Your task to perform on an android device: Empty the shopping cart on target. Search for razer blackwidow on target, select the first entry, and add it to the cart. Image 0: 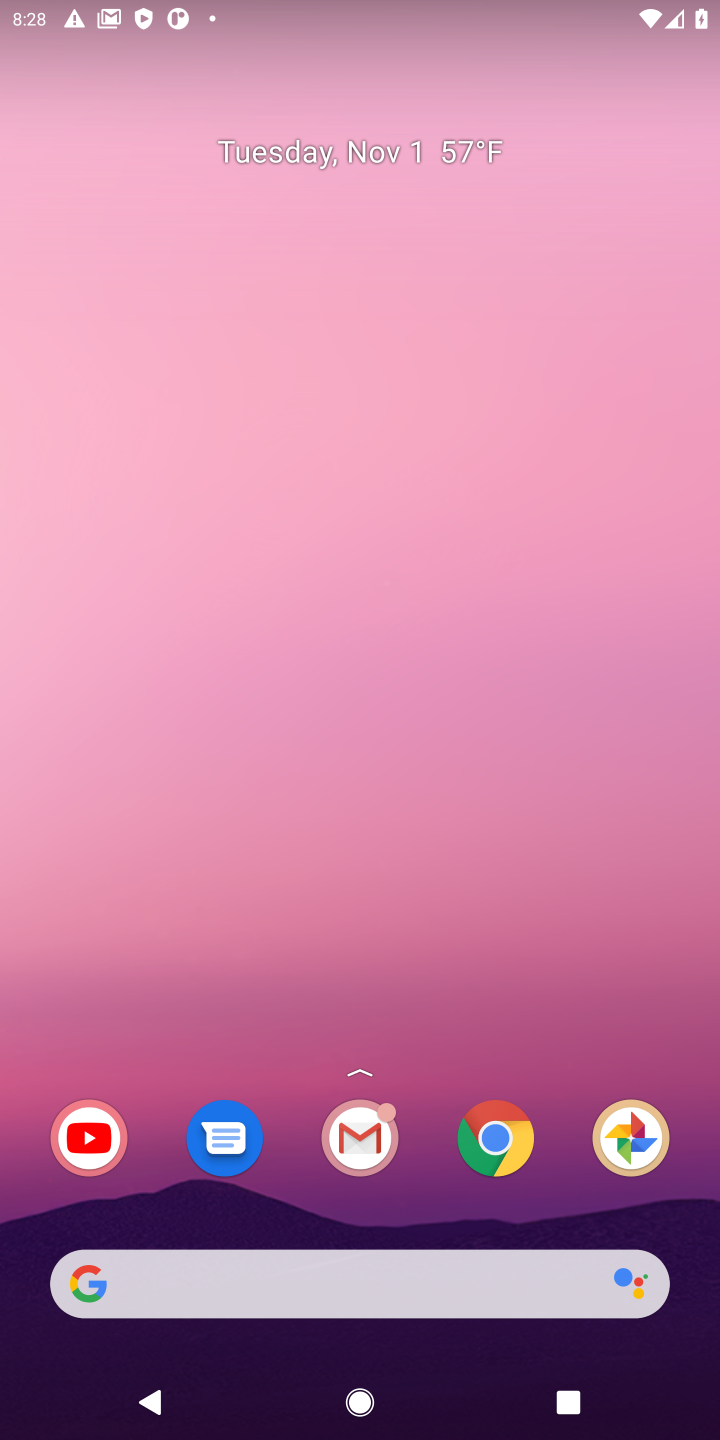
Step 0: click (503, 1147)
Your task to perform on an android device: Empty the shopping cart on target. Search for razer blackwidow on target, select the first entry, and add it to the cart. Image 1: 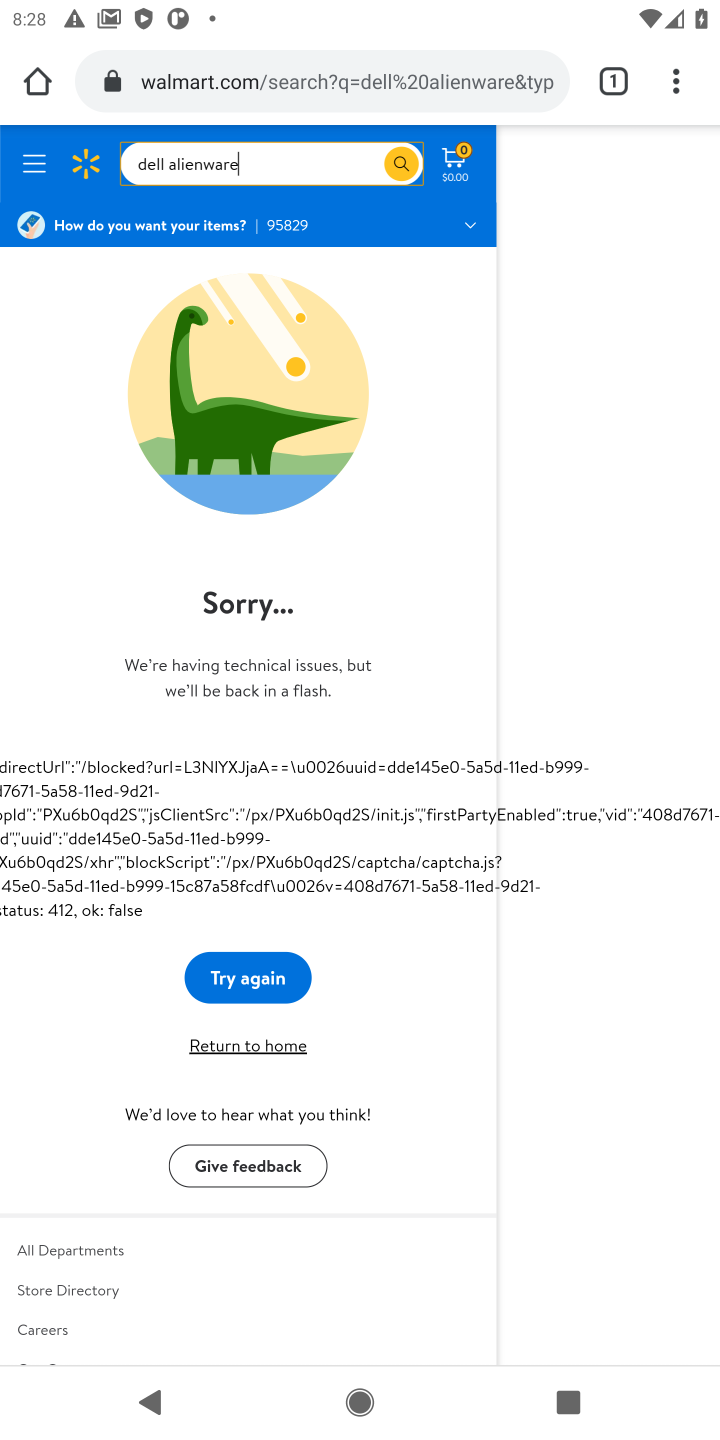
Step 1: click (279, 92)
Your task to perform on an android device: Empty the shopping cart on target. Search for razer blackwidow on target, select the first entry, and add it to the cart. Image 2: 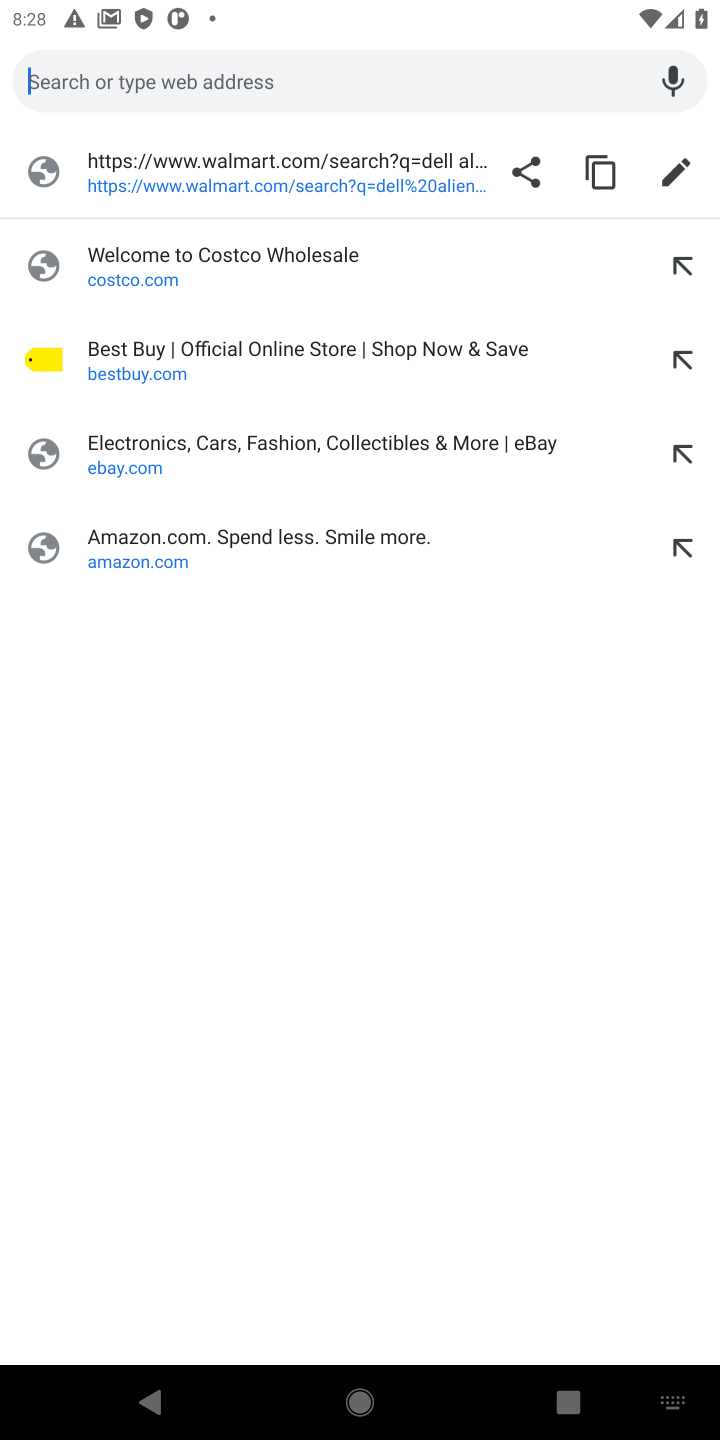
Step 2: type "target.com"
Your task to perform on an android device: Empty the shopping cart on target. Search for razer blackwidow on target, select the first entry, and add it to the cart. Image 3: 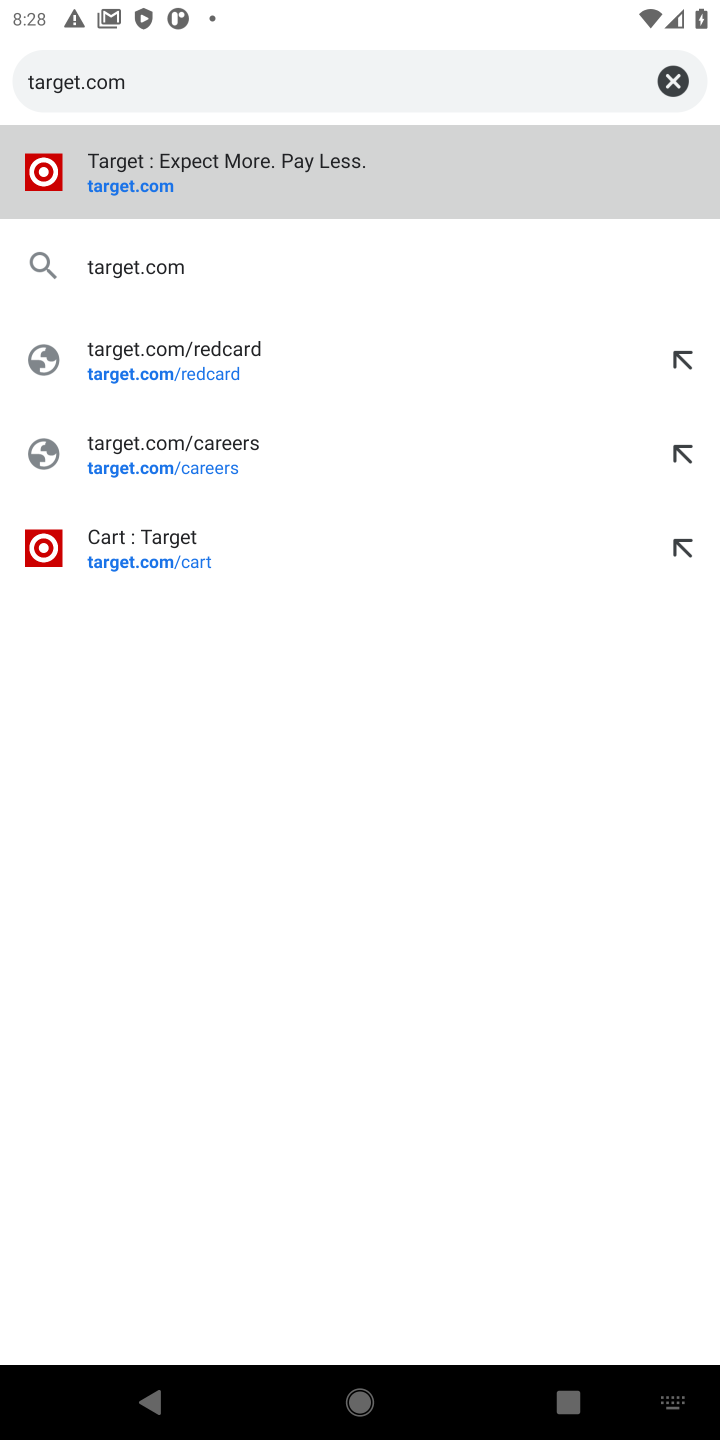
Step 3: click (111, 189)
Your task to perform on an android device: Empty the shopping cart on target. Search for razer blackwidow on target, select the first entry, and add it to the cart. Image 4: 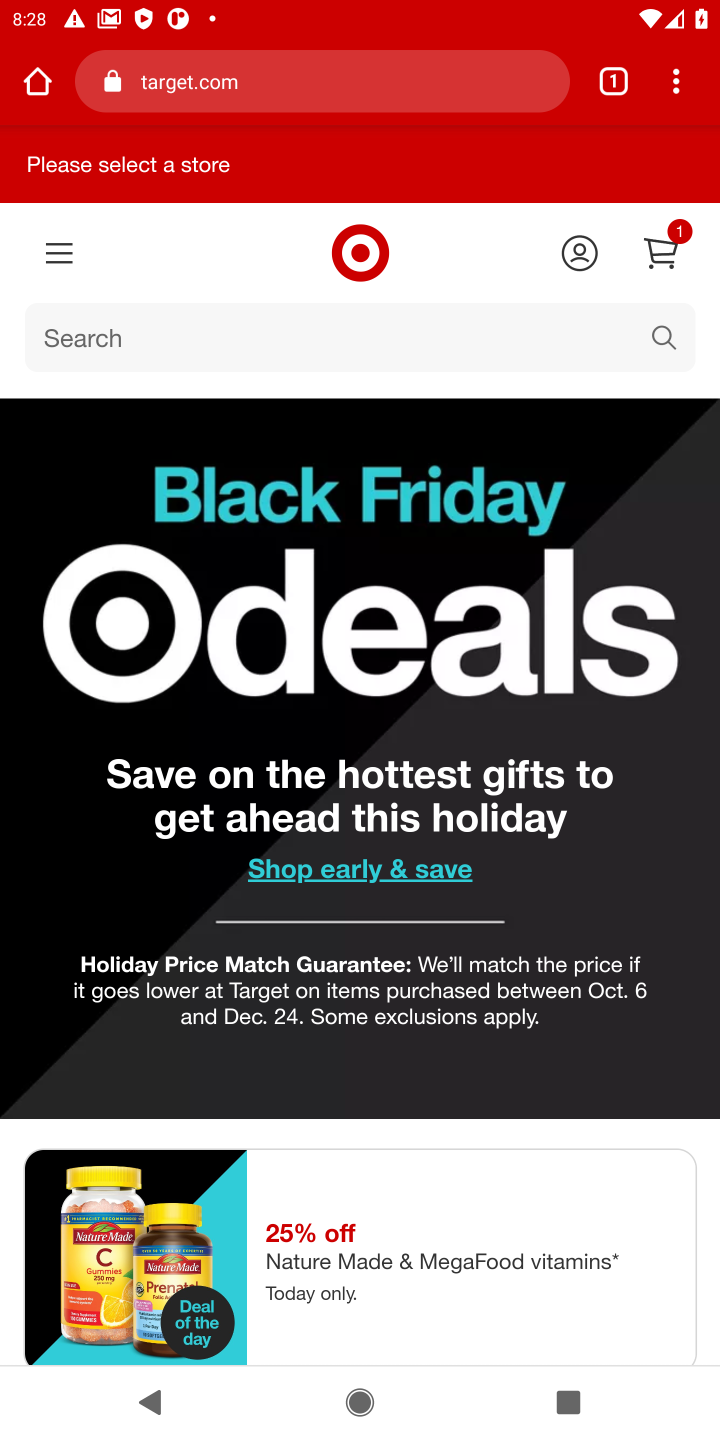
Step 4: click (107, 345)
Your task to perform on an android device: Empty the shopping cart on target. Search for razer blackwidow on target, select the first entry, and add it to the cart. Image 5: 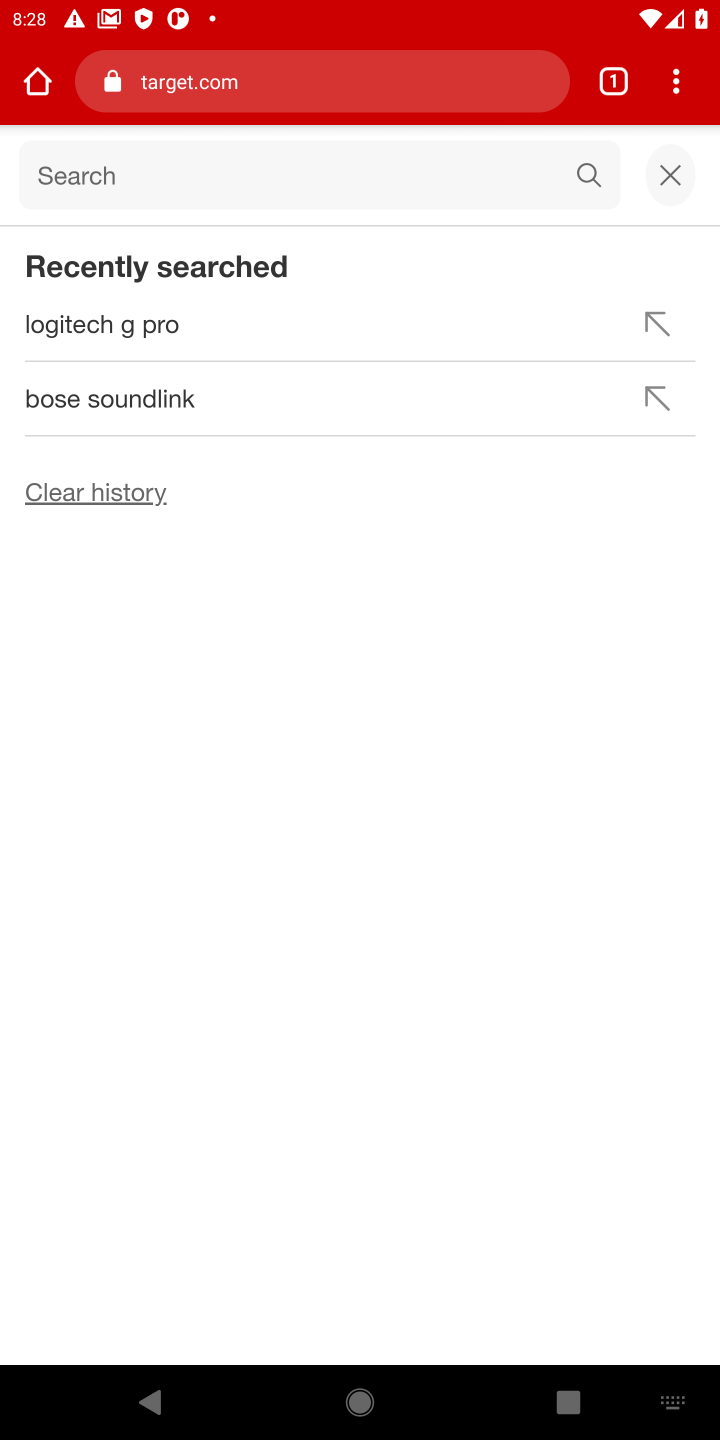
Step 5: type "razer blackwidow"
Your task to perform on an android device: Empty the shopping cart on target. Search for razer blackwidow on target, select the first entry, and add it to the cart. Image 6: 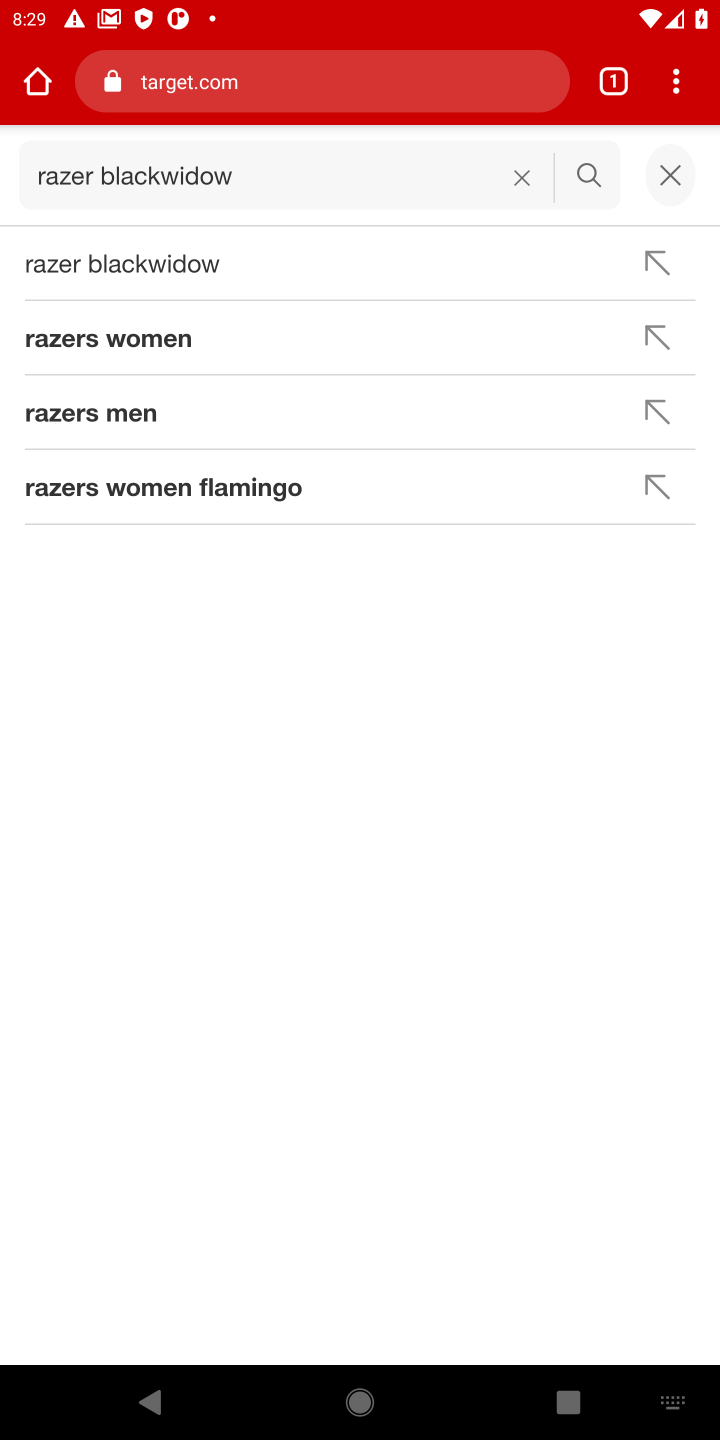
Step 6: click (155, 194)
Your task to perform on an android device: Empty the shopping cart on target. Search for razer blackwidow on target, select the first entry, and add it to the cart. Image 7: 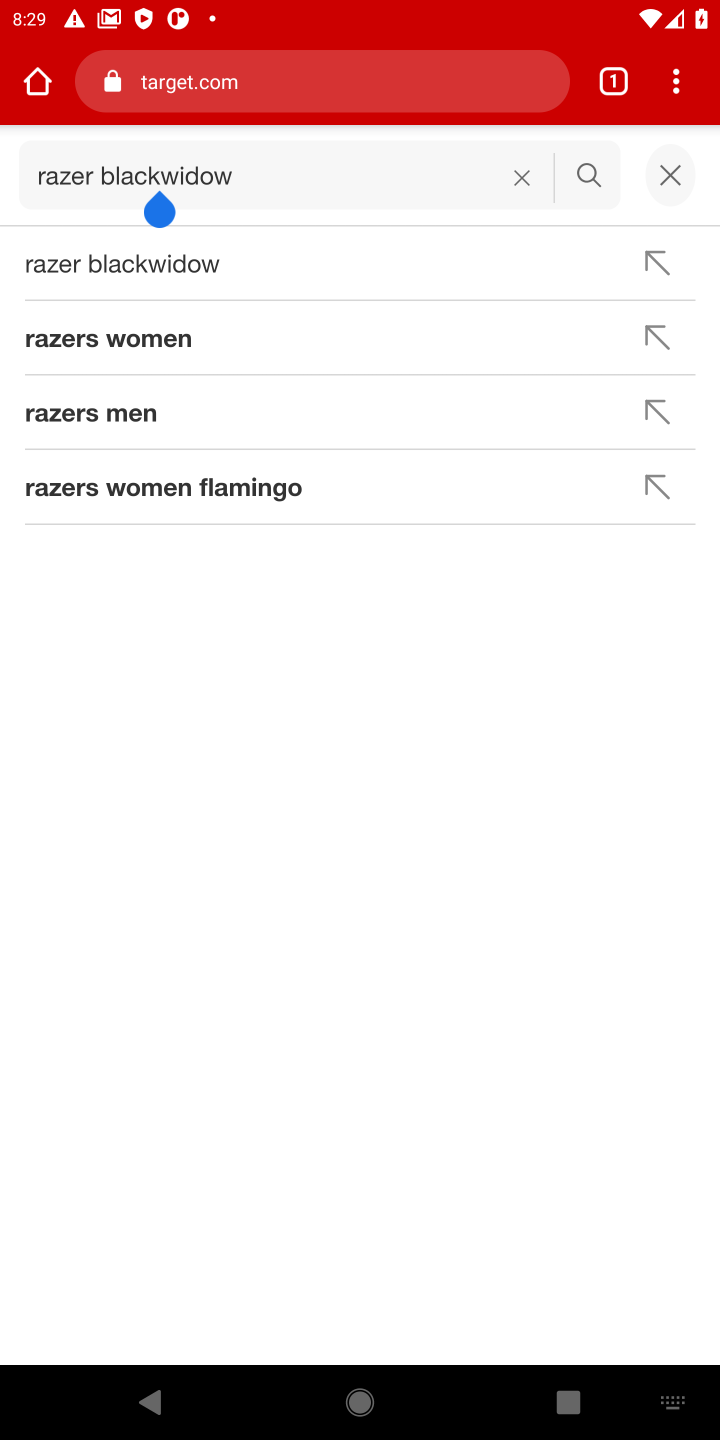
Step 7: click (141, 277)
Your task to perform on an android device: Empty the shopping cart on target. Search for razer blackwidow on target, select the first entry, and add it to the cart. Image 8: 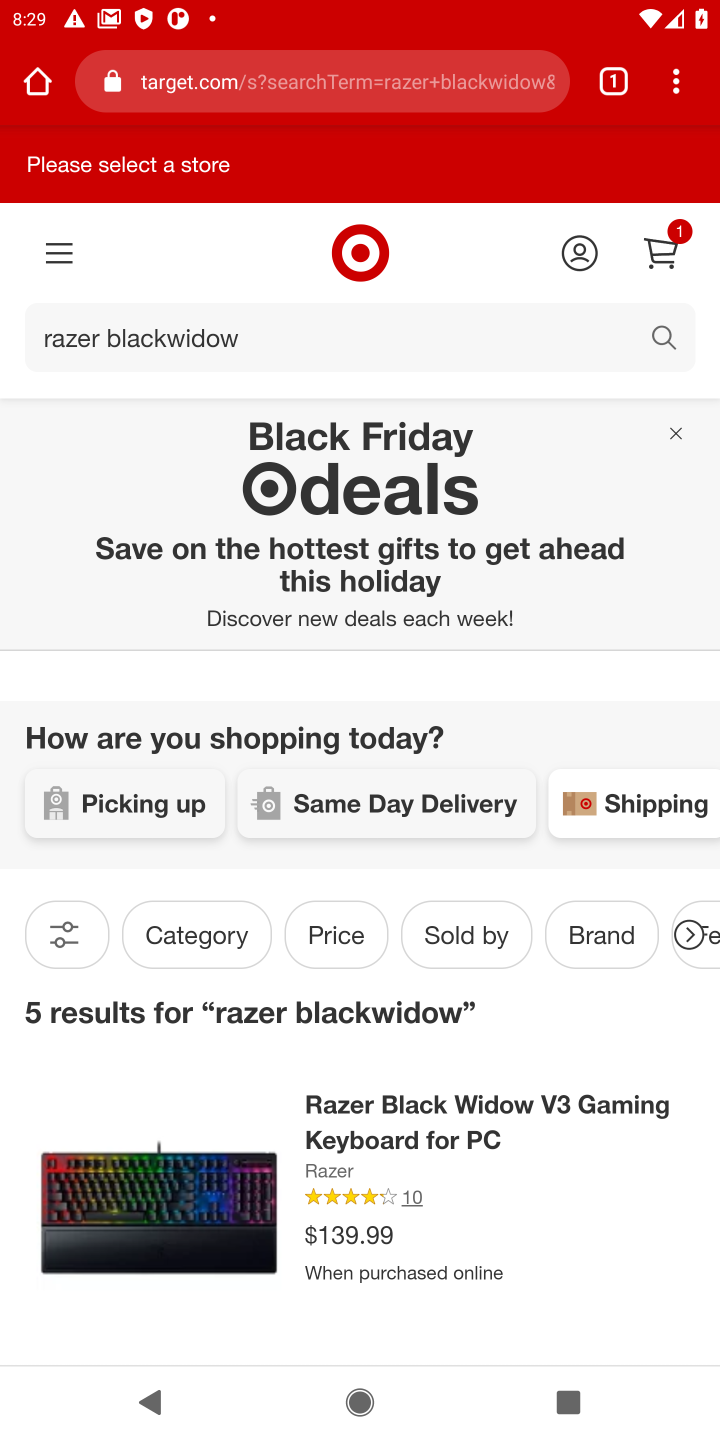
Step 8: click (655, 244)
Your task to perform on an android device: Empty the shopping cart on target. Search for razer blackwidow on target, select the first entry, and add it to the cart. Image 9: 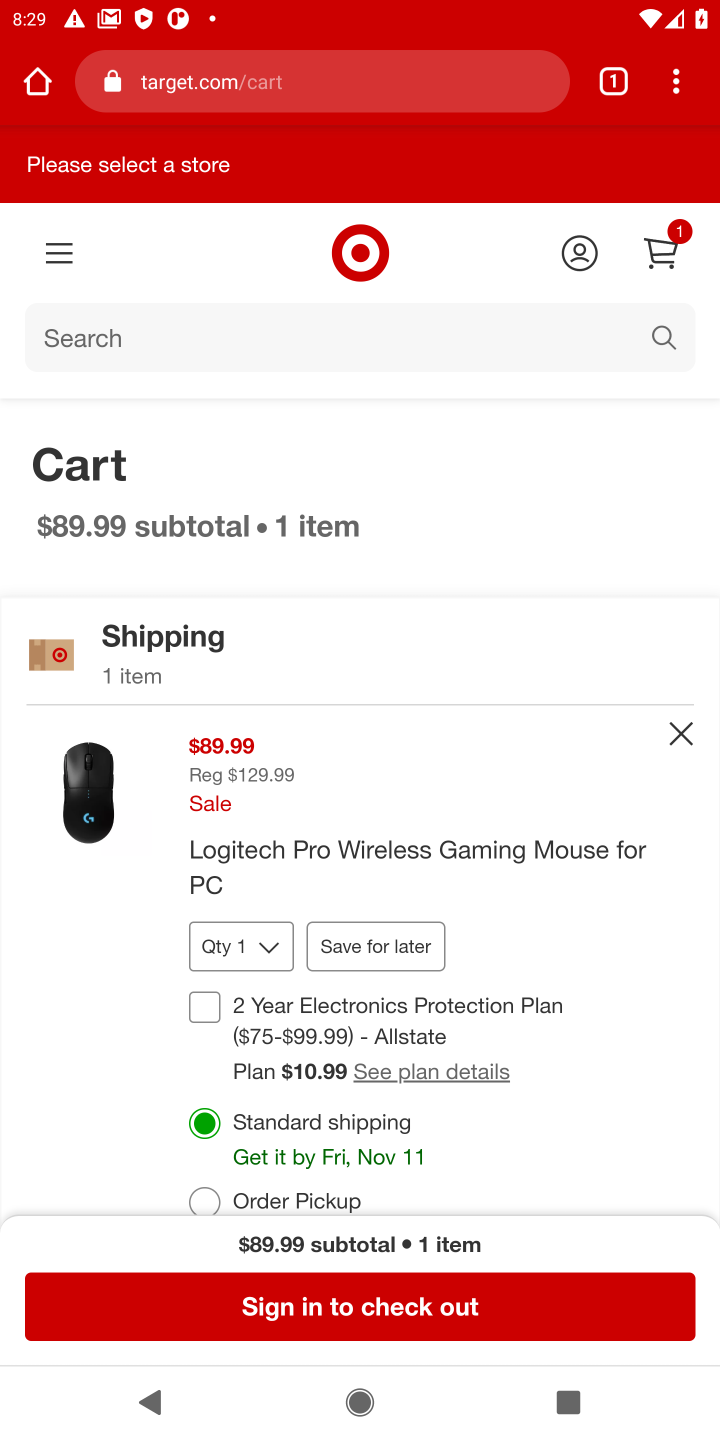
Step 9: drag from (338, 1084) to (333, 864)
Your task to perform on an android device: Empty the shopping cart on target. Search for razer blackwidow on target, select the first entry, and add it to the cart. Image 10: 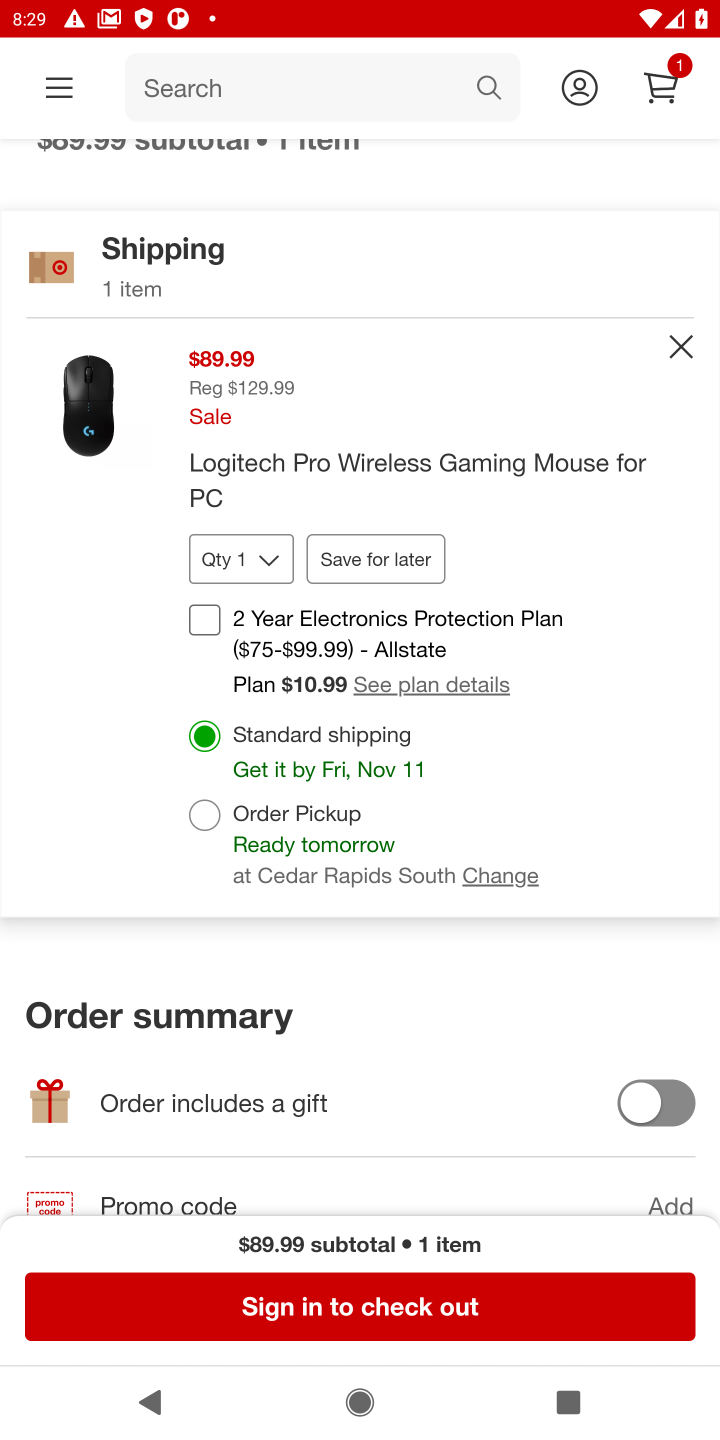
Step 10: click (660, 356)
Your task to perform on an android device: Empty the shopping cart on target. Search for razer blackwidow on target, select the first entry, and add it to the cart. Image 11: 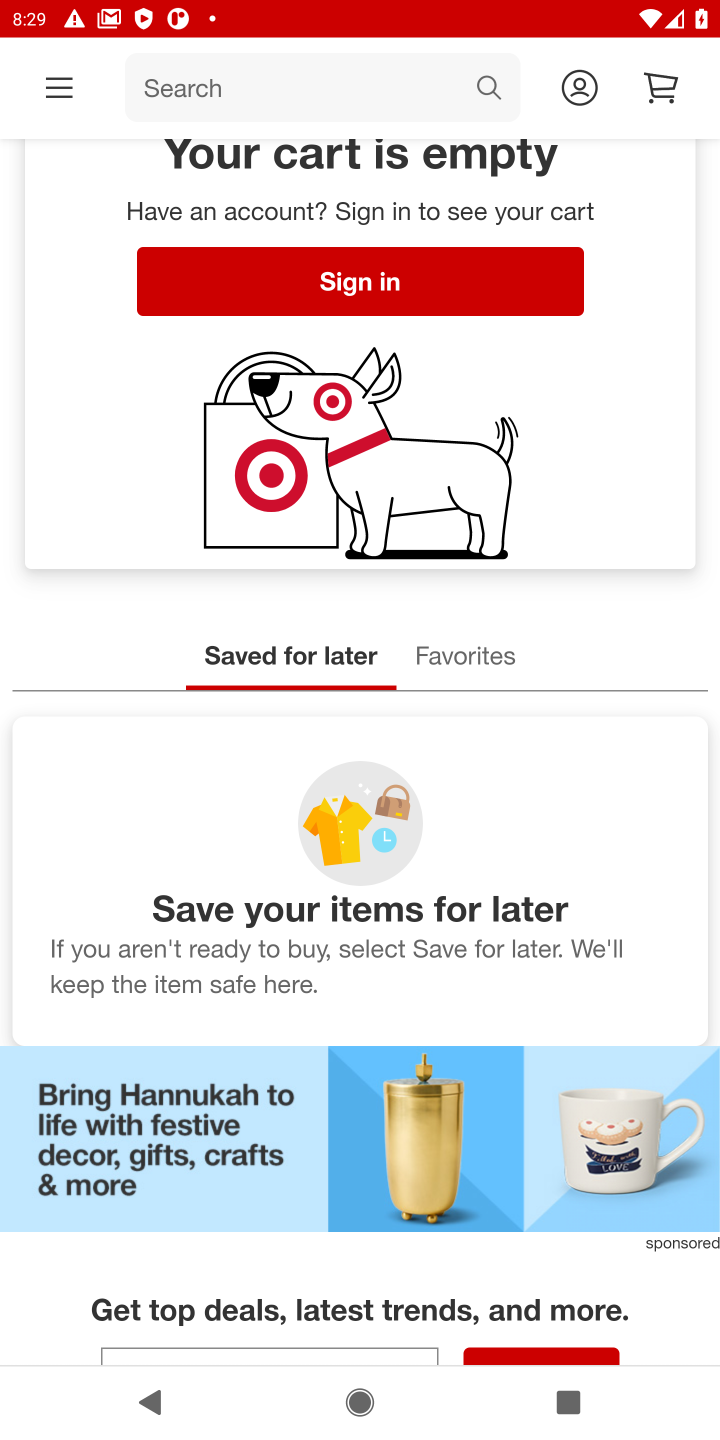
Step 11: click (489, 95)
Your task to perform on an android device: Empty the shopping cart on target. Search for razer blackwidow on target, select the first entry, and add it to the cart. Image 12: 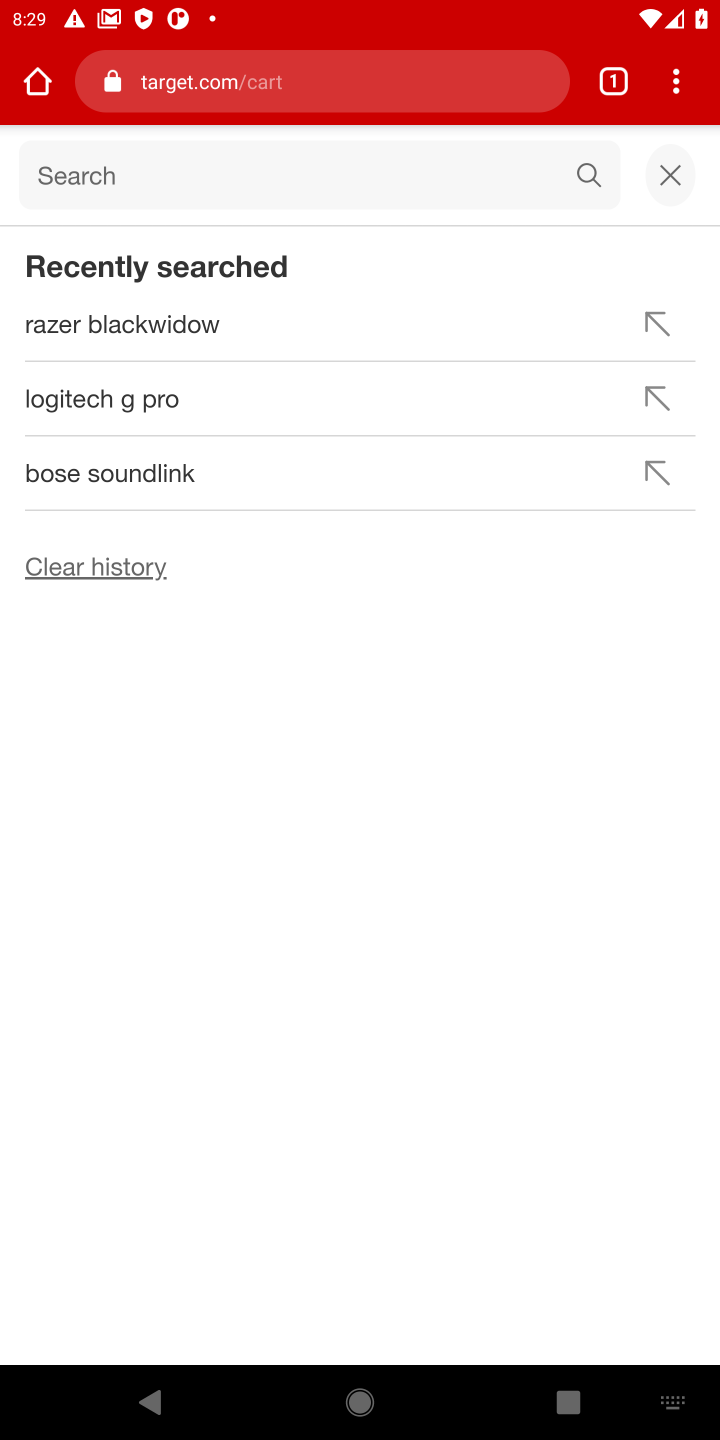
Step 12: click (118, 329)
Your task to perform on an android device: Empty the shopping cart on target. Search for razer blackwidow on target, select the first entry, and add it to the cart. Image 13: 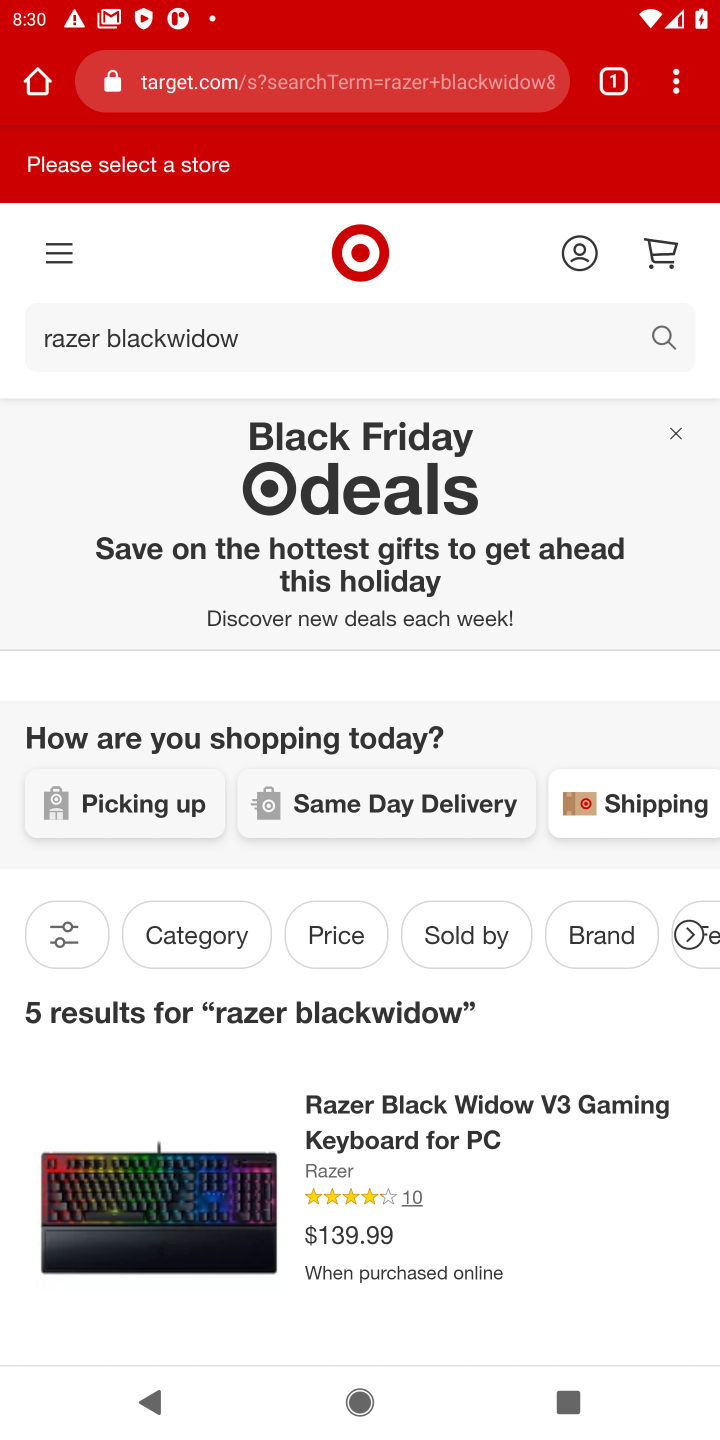
Step 13: click (224, 1219)
Your task to perform on an android device: Empty the shopping cart on target. Search for razer blackwidow on target, select the first entry, and add it to the cart. Image 14: 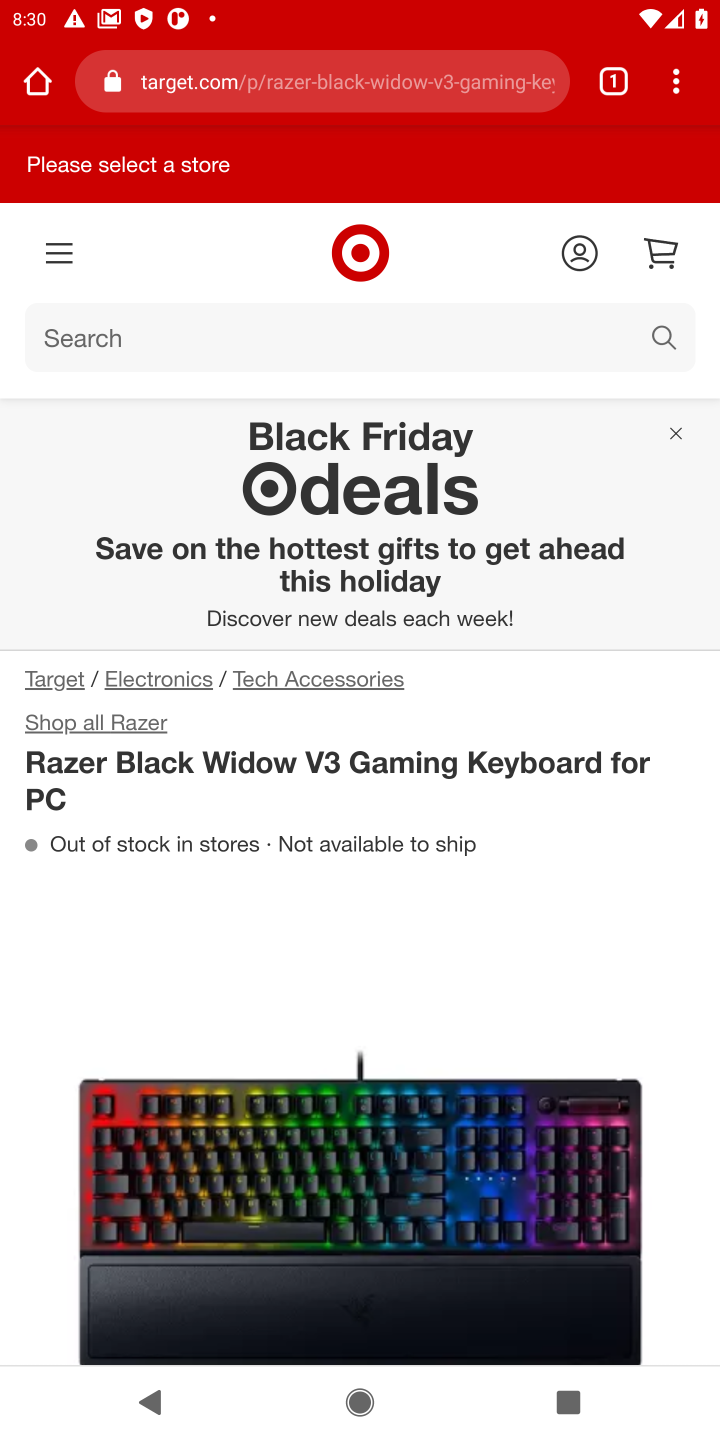
Step 14: drag from (240, 1109) to (215, 553)
Your task to perform on an android device: Empty the shopping cart on target. Search for razer blackwidow on target, select the first entry, and add it to the cart. Image 15: 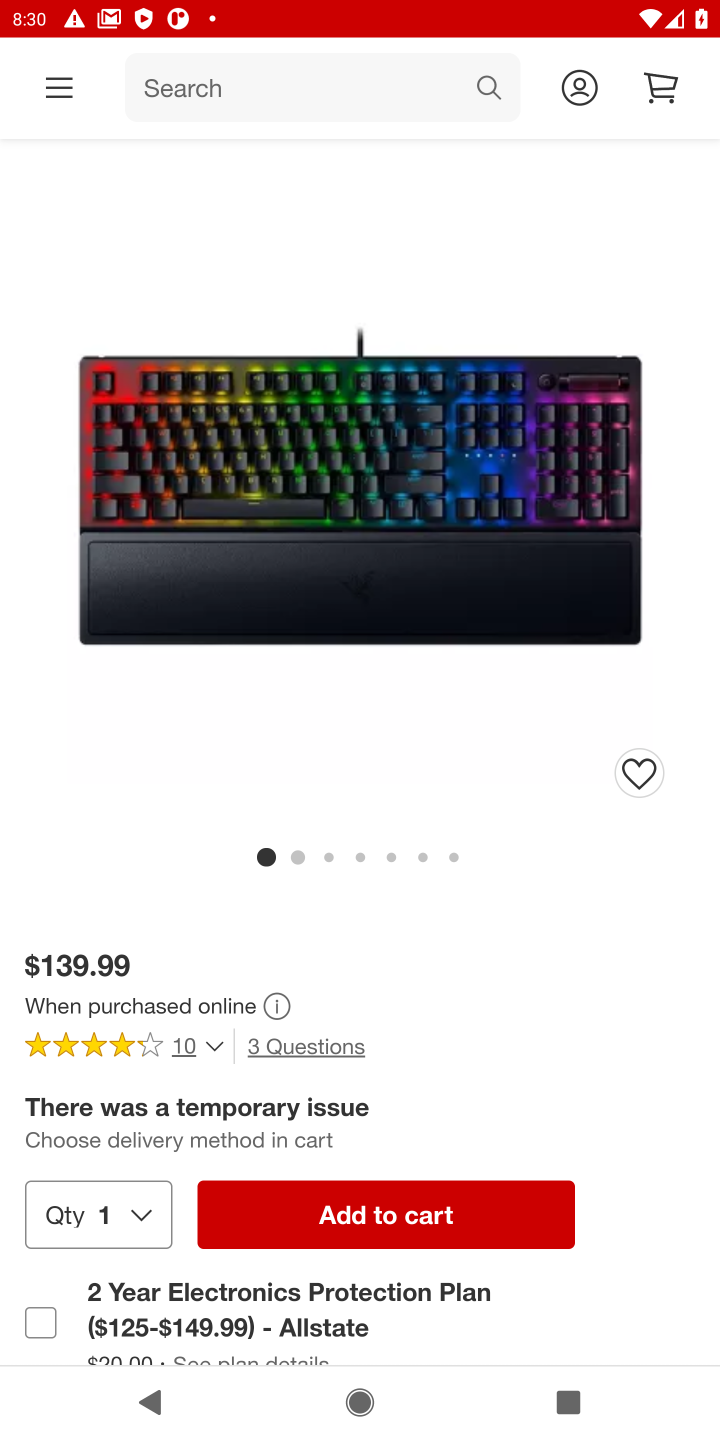
Step 15: click (365, 1219)
Your task to perform on an android device: Empty the shopping cart on target. Search for razer blackwidow on target, select the first entry, and add it to the cart. Image 16: 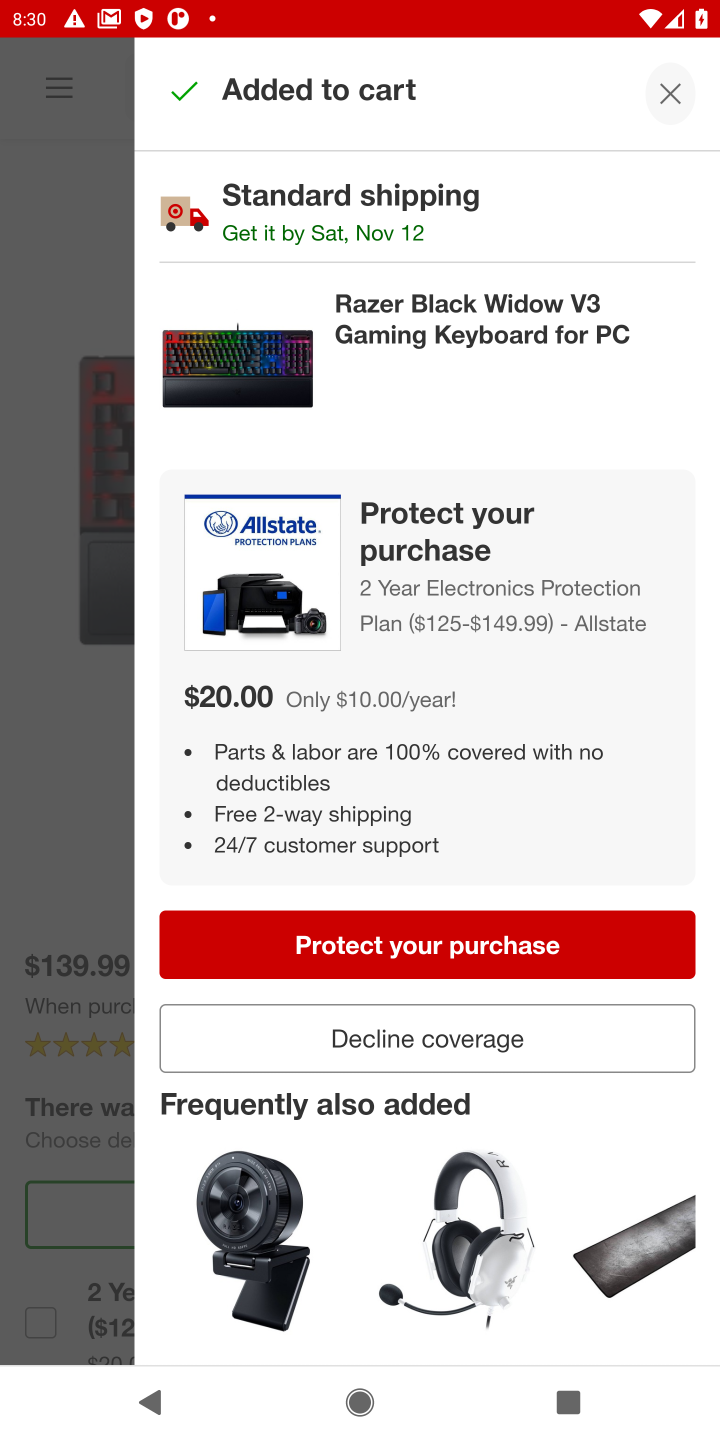
Step 16: task complete